Your task to perform on an android device: set the timer Image 0: 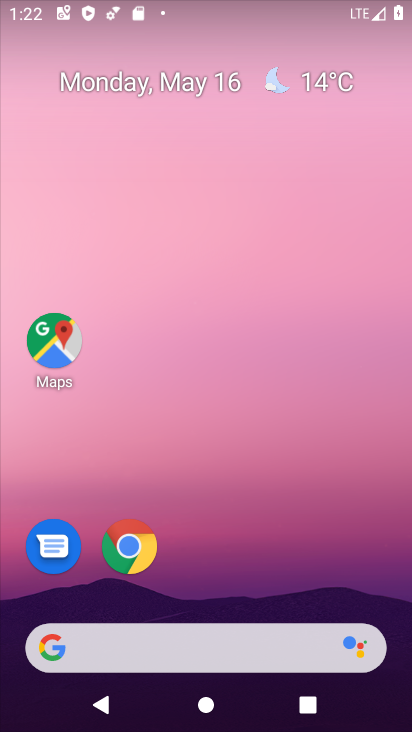
Step 0: drag from (235, 674) to (295, 282)
Your task to perform on an android device: set the timer Image 1: 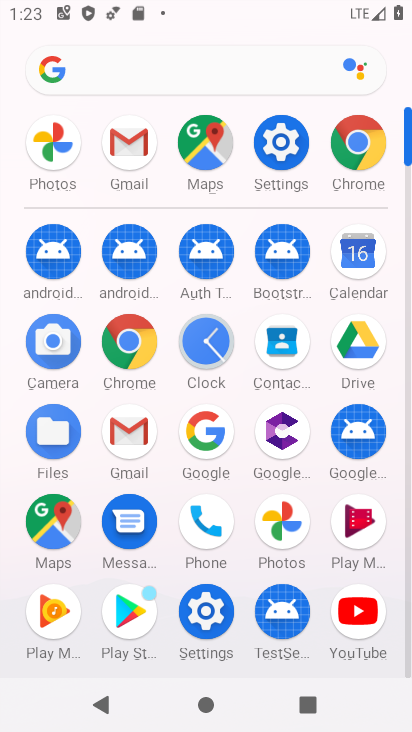
Step 1: click (201, 350)
Your task to perform on an android device: set the timer Image 2: 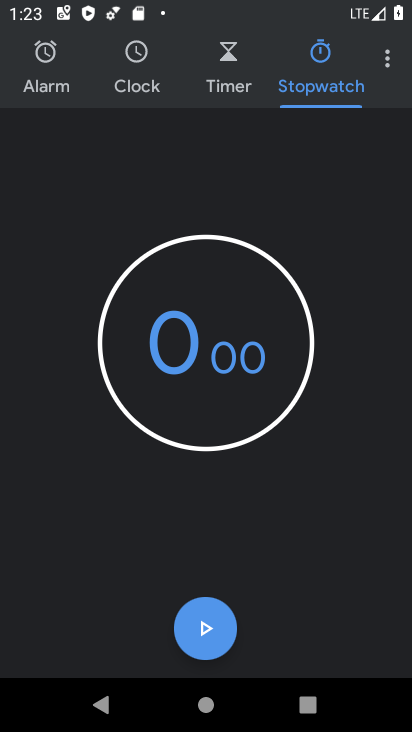
Step 2: click (384, 77)
Your task to perform on an android device: set the timer Image 3: 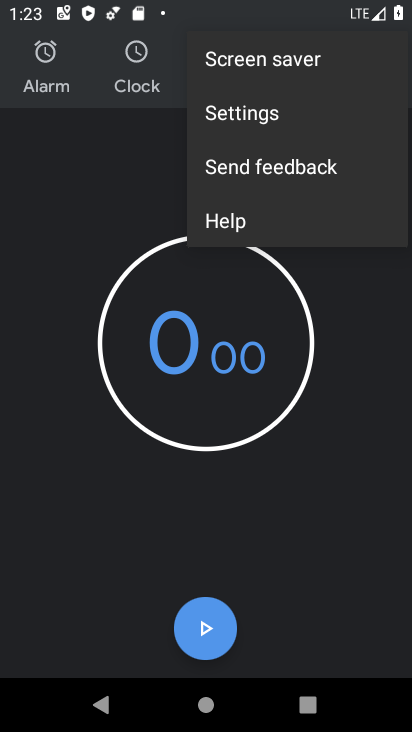
Step 3: click (173, 269)
Your task to perform on an android device: set the timer Image 4: 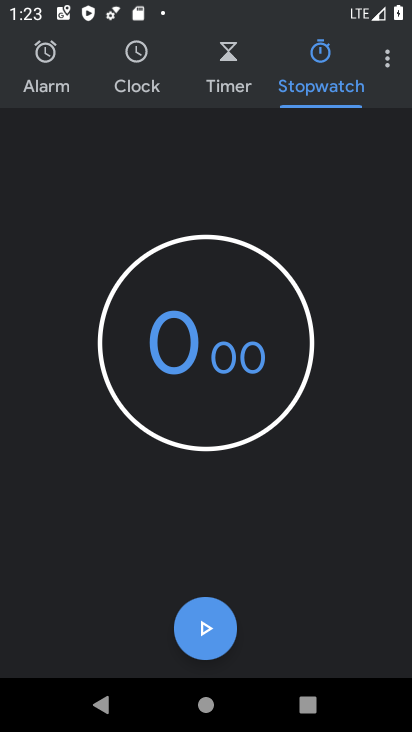
Step 4: click (221, 93)
Your task to perform on an android device: set the timer Image 5: 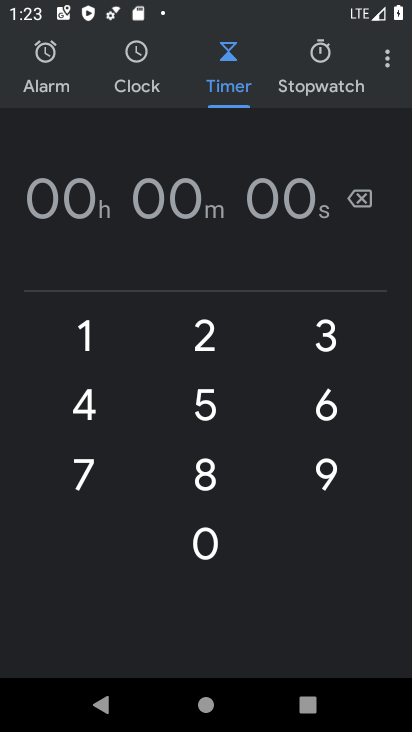
Step 5: task complete